Your task to perform on an android device: turn off improve location accuracy Image 0: 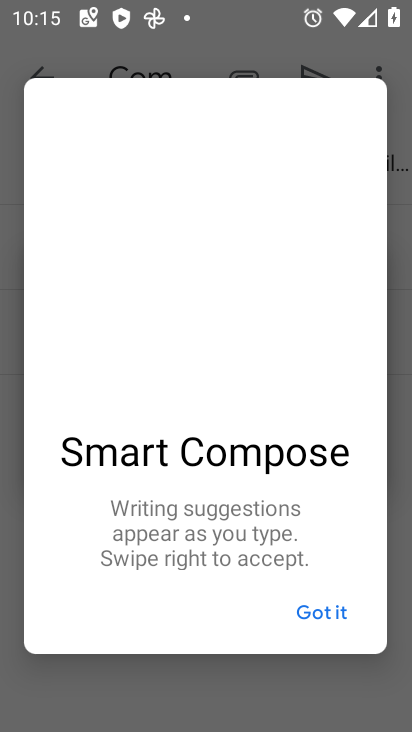
Step 0: press home button
Your task to perform on an android device: turn off improve location accuracy Image 1: 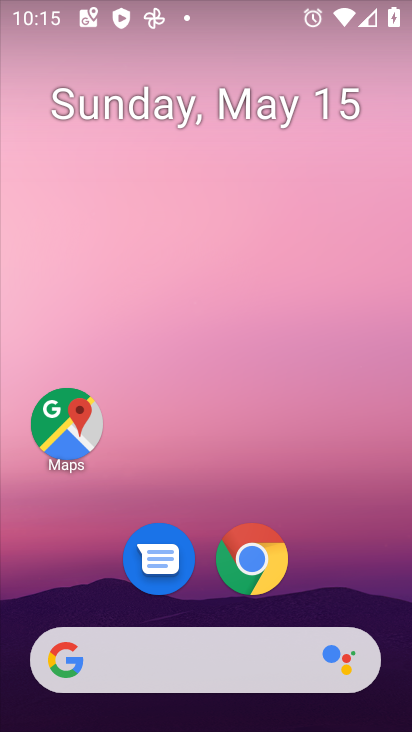
Step 1: drag from (352, 588) to (333, 502)
Your task to perform on an android device: turn off improve location accuracy Image 2: 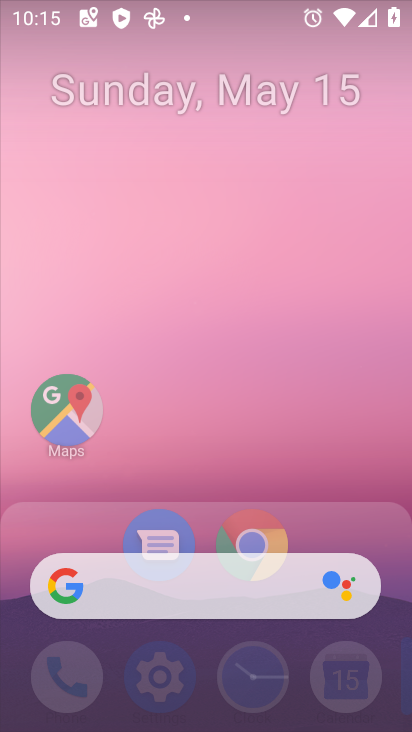
Step 2: click (333, 502)
Your task to perform on an android device: turn off improve location accuracy Image 3: 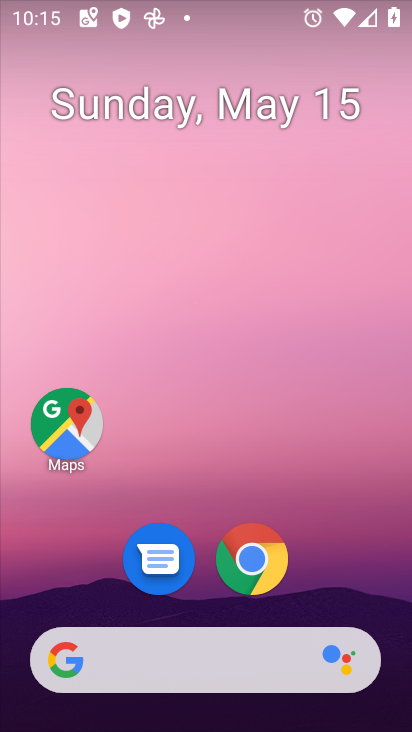
Step 3: drag from (336, 603) to (215, 2)
Your task to perform on an android device: turn off improve location accuracy Image 4: 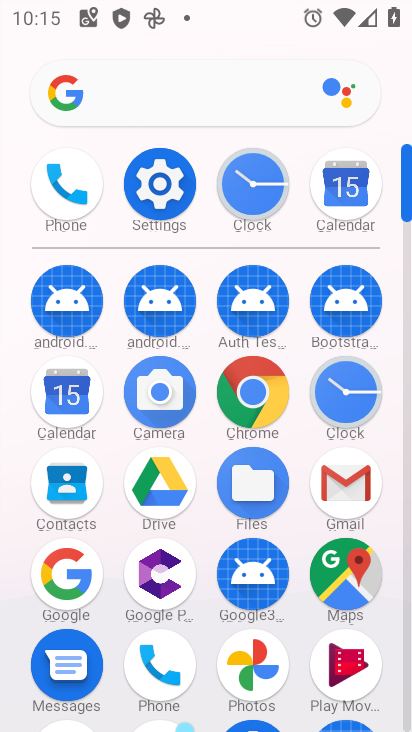
Step 4: click (164, 165)
Your task to perform on an android device: turn off improve location accuracy Image 5: 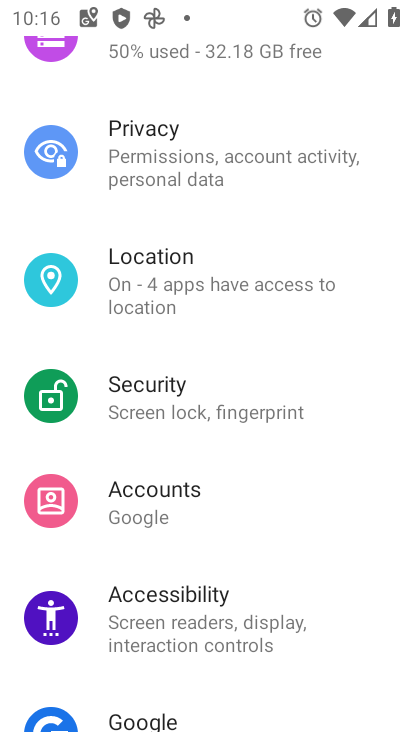
Step 5: click (210, 291)
Your task to perform on an android device: turn off improve location accuracy Image 6: 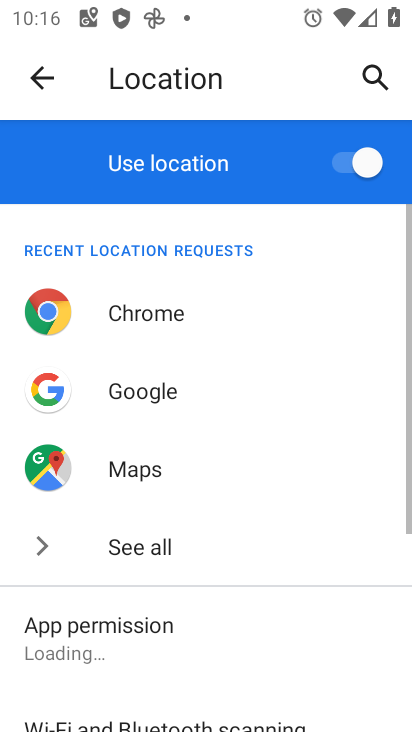
Step 6: drag from (186, 583) to (228, 308)
Your task to perform on an android device: turn off improve location accuracy Image 7: 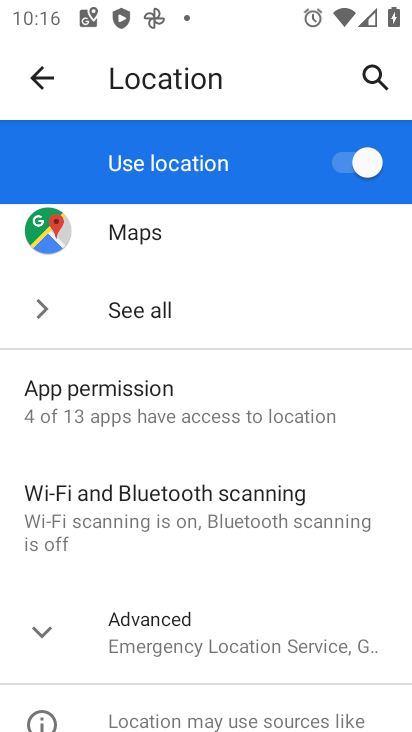
Step 7: drag from (186, 624) to (208, 504)
Your task to perform on an android device: turn off improve location accuracy Image 8: 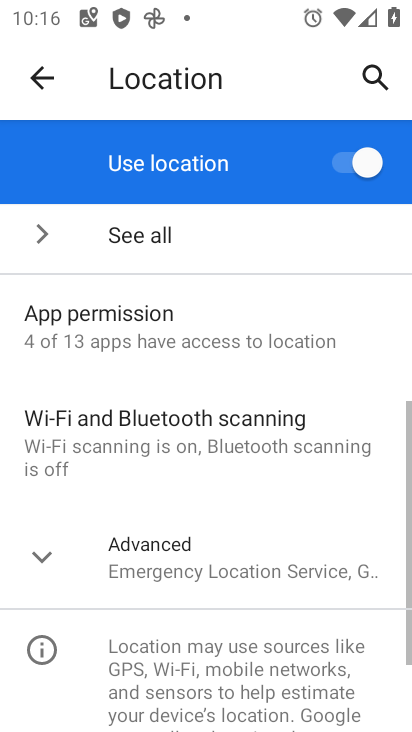
Step 8: click (208, 504)
Your task to perform on an android device: turn off improve location accuracy Image 9: 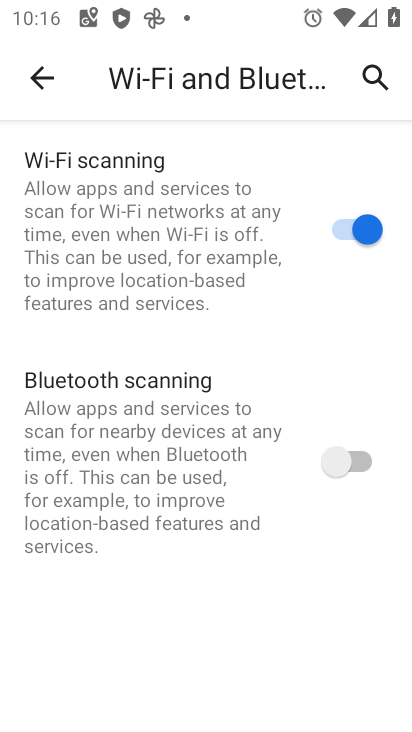
Step 9: click (23, 72)
Your task to perform on an android device: turn off improve location accuracy Image 10: 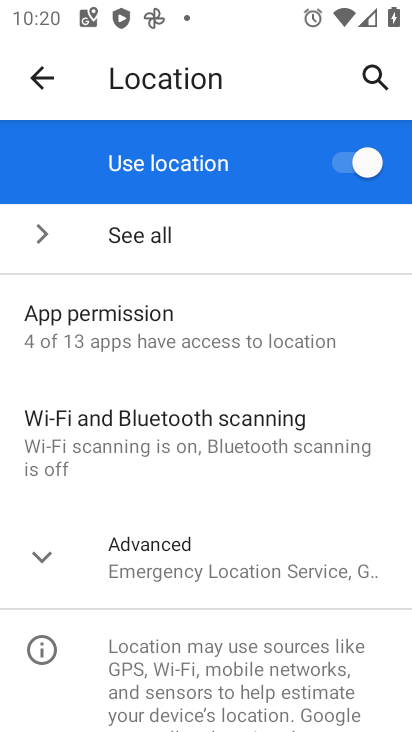
Step 10: click (160, 531)
Your task to perform on an android device: turn off improve location accuracy Image 11: 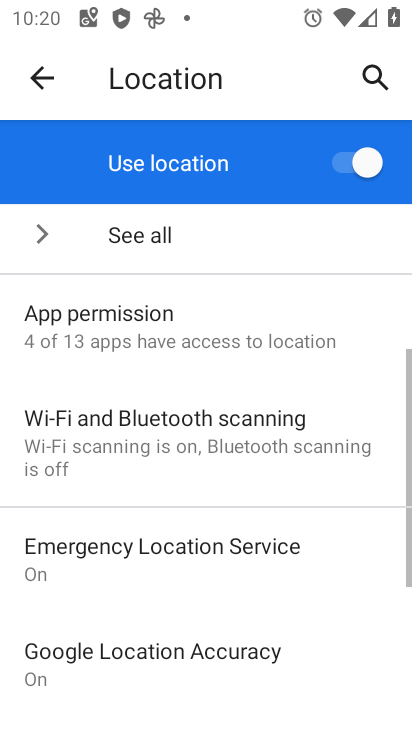
Step 11: drag from (160, 531) to (184, 376)
Your task to perform on an android device: turn off improve location accuracy Image 12: 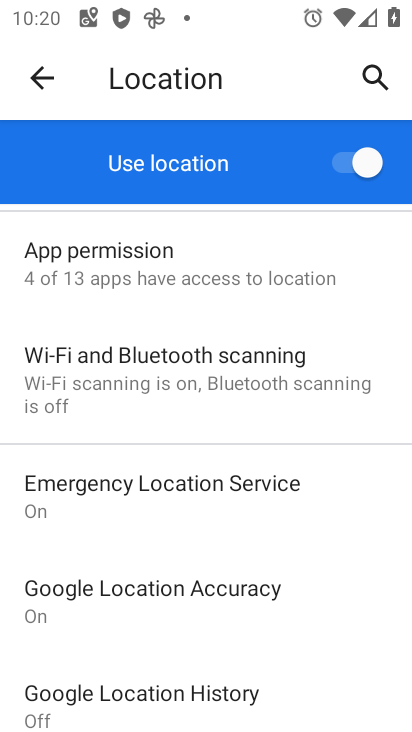
Step 12: click (180, 675)
Your task to perform on an android device: turn off improve location accuracy Image 13: 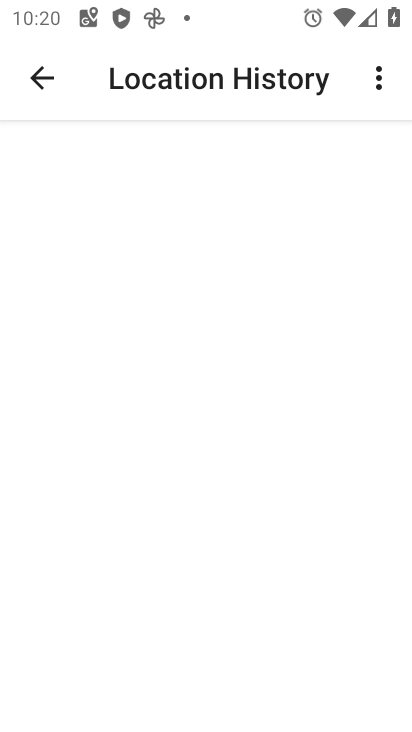
Step 13: task complete